Your task to perform on an android device: Go to internet settings Image 0: 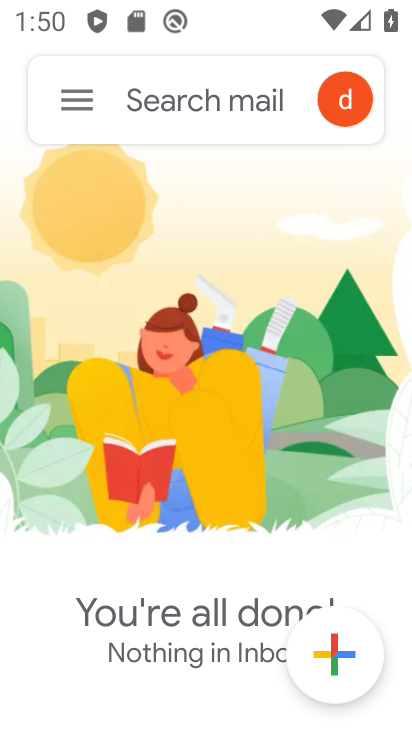
Step 0: press back button
Your task to perform on an android device: Go to internet settings Image 1: 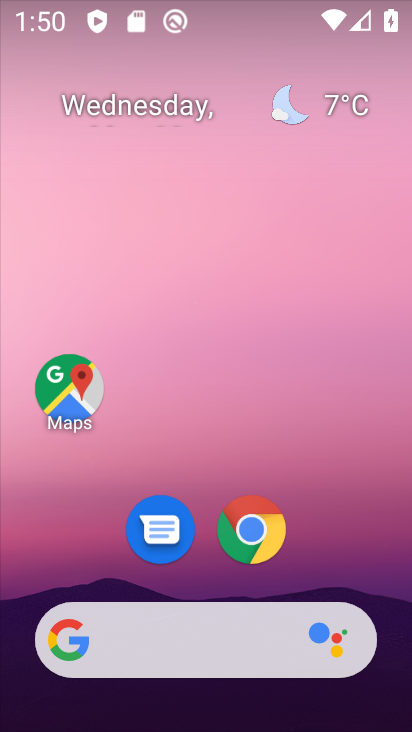
Step 1: drag from (49, 542) to (150, 193)
Your task to perform on an android device: Go to internet settings Image 2: 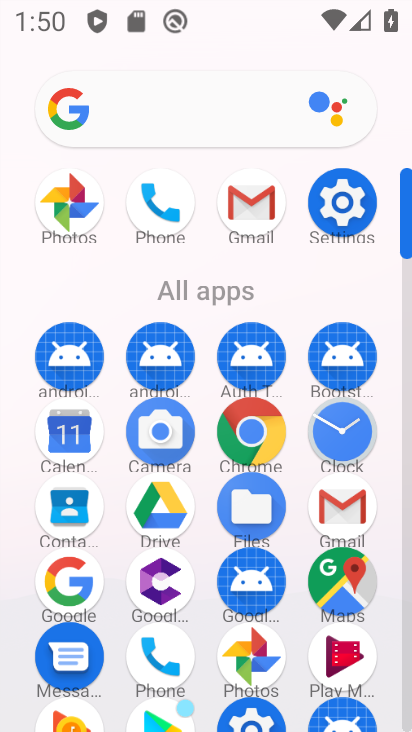
Step 2: click (343, 200)
Your task to perform on an android device: Go to internet settings Image 3: 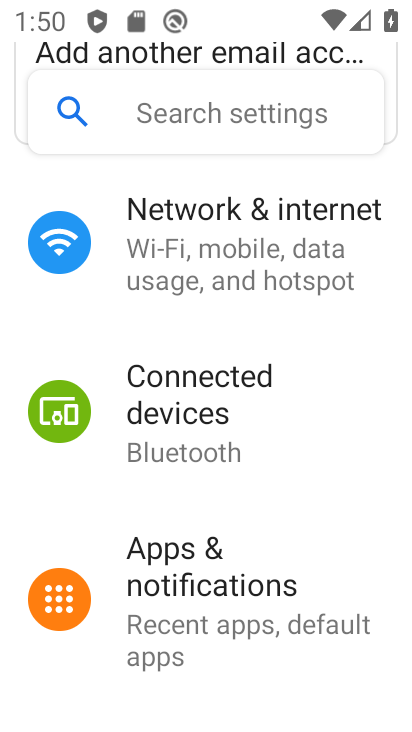
Step 3: click (260, 261)
Your task to perform on an android device: Go to internet settings Image 4: 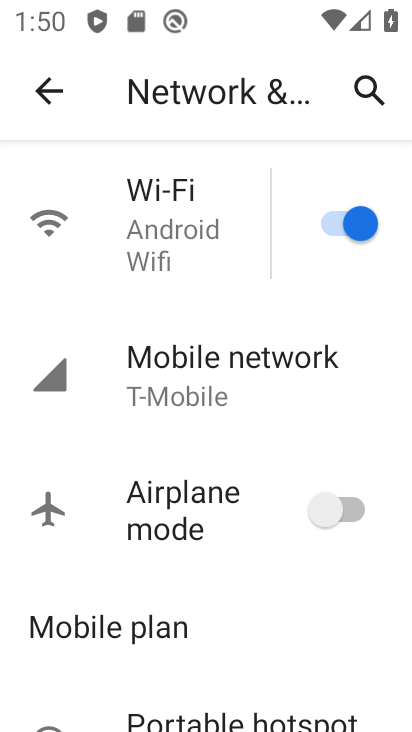
Step 4: click (184, 394)
Your task to perform on an android device: Go to internet settings Image 5: 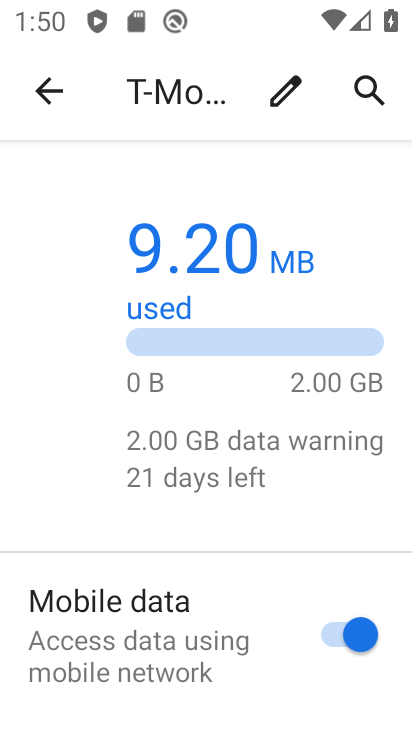
Step 5: task complete